Your task to perform on an android device: turn vacation reply on in the gmail app Image 0: 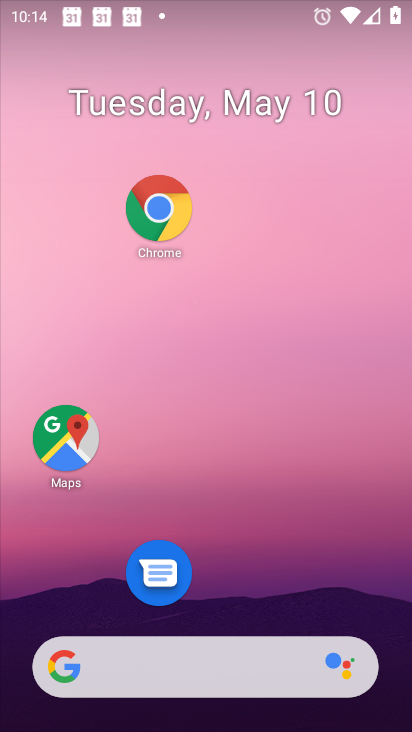
Step 0: drag from (307, 685) to (311, 132)
Your task to perform on an android device: turn vacation reply on in the gmail app Image 1: 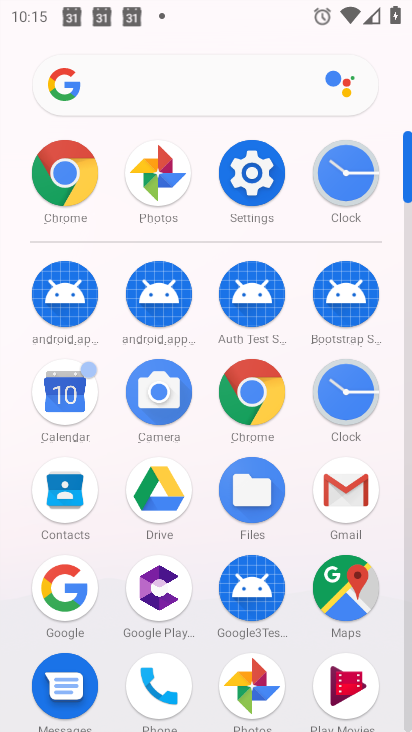
Step 1: click (352, 502)
Your task to perform on an android device: turn vacation reply on in the gmail app Image 2: 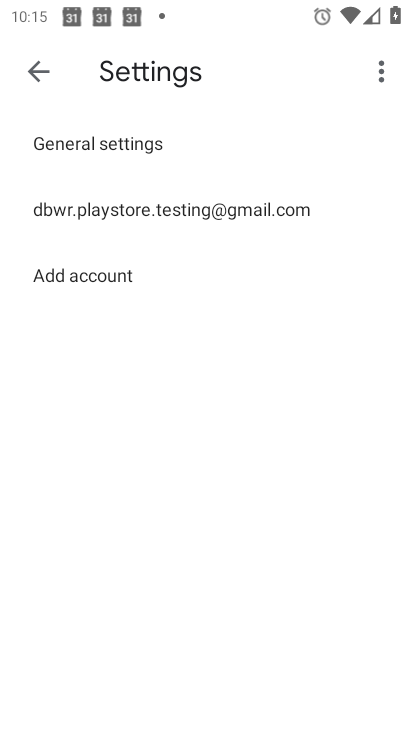
Step 2: click (126, 210)
Your task to perform on an android device: turn vacation reply on in the gmail app Image 3: 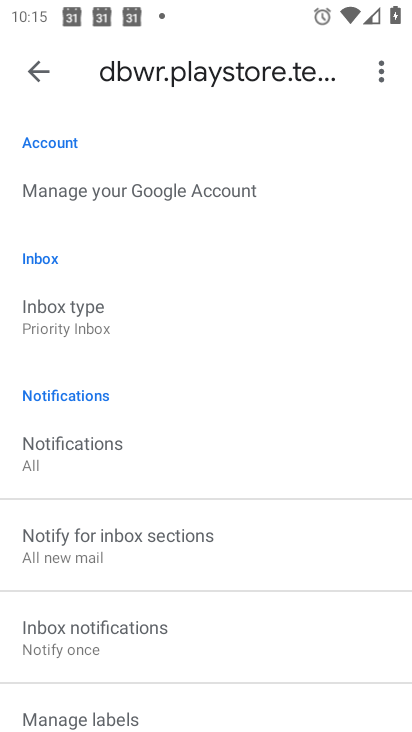
Step 3: drag from (207, 550) to (215, 268)
Your task to perform on an android device: turn vacation reply on in the gmail app Image 4: 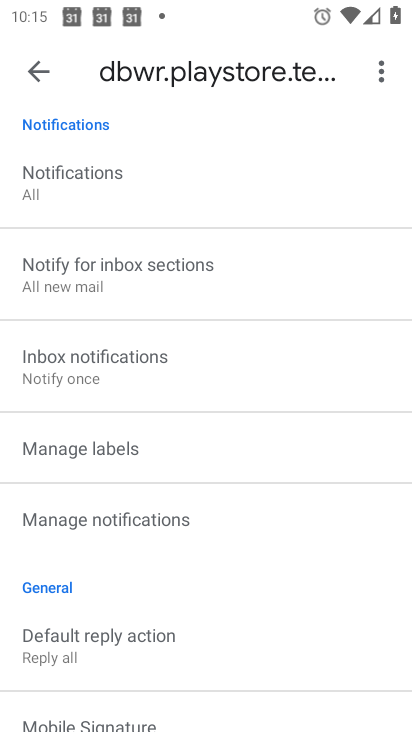
Step 4: drag from (230, 564) to (255, 271)
Your task to perform on an android device: turn vacation reply on in the gmail app Image 5: 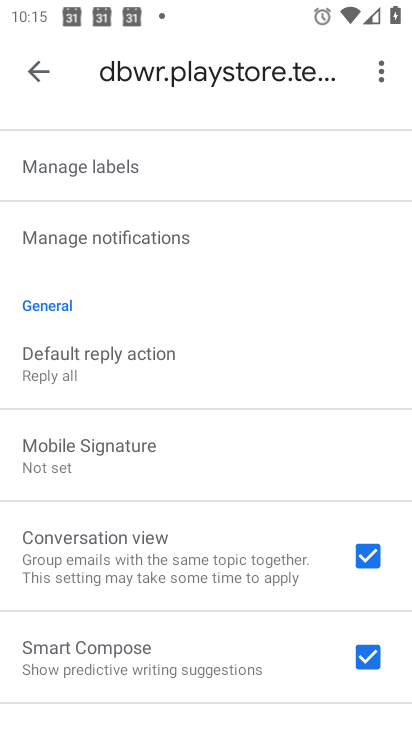
Step 5: drag from (166, 605) to (218, 294)
Your task to perform on an android device: turn vacation reply on in the gmail app Image 6: 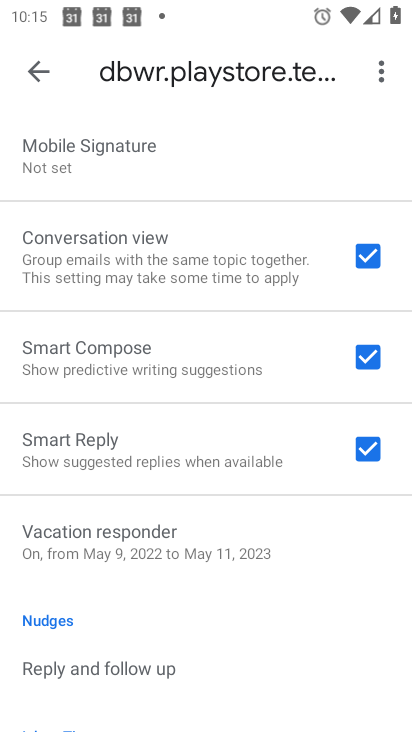
Step 6: click (199, 535)
Your task to perform on an android device: turn vacation reply on in the gmail app Image 7: 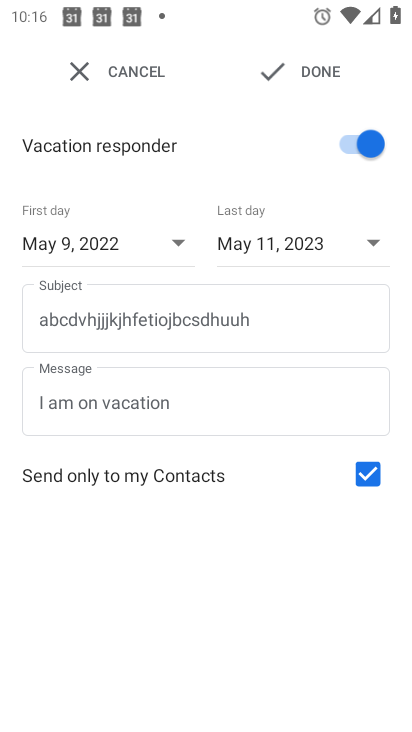
Step 7: task complete